Your task to perform on an android device: Open Reddit.com Image 0: 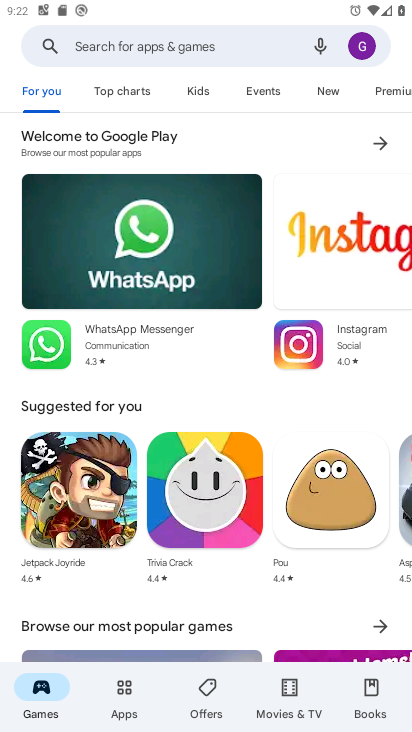
Step 0: press home button
Your task to perform on an android device: Open Reddit.com Image 1: 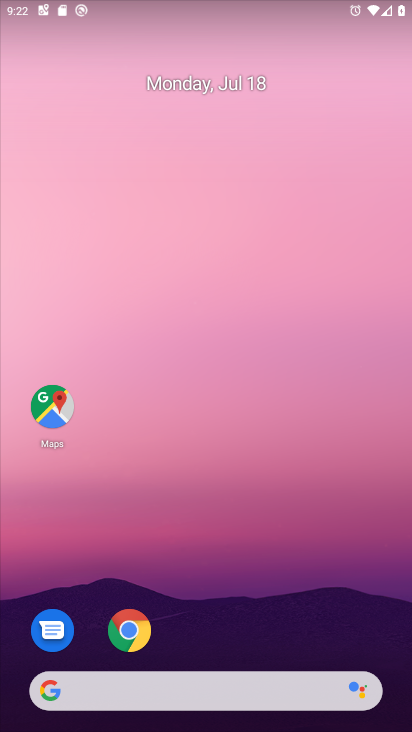
Step 1: click (130, 644)
Your task to perform on an android device: Open Reddit.com Image 2: 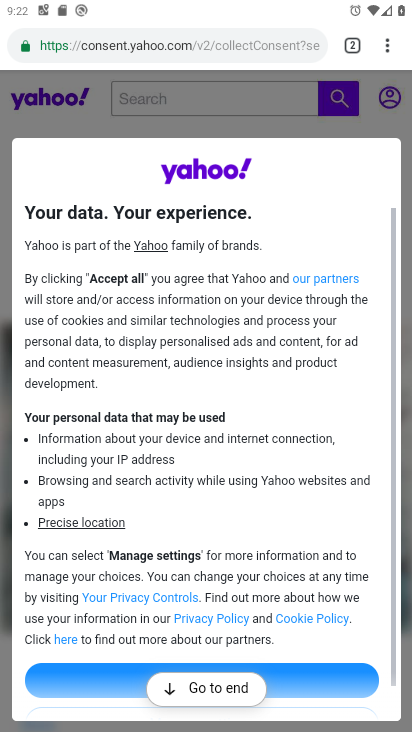
Step 2: click (346, 40)
Your task to perform on an android device: Open Reddit.com Image 3: 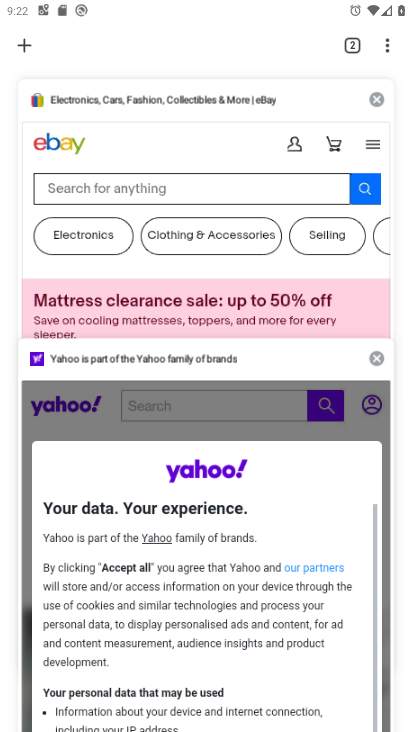
Step 3: click (28, 48)
Your task to perform on an android device: Open Reddit.com Image 4: 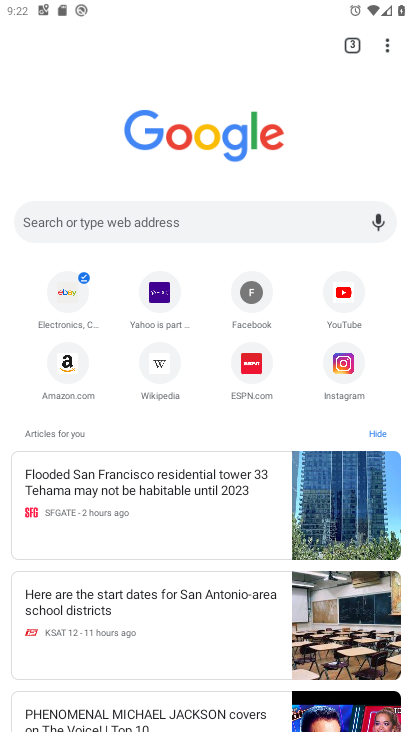
Step 4: click (205, 221)
Your task to perform on an android device: Open Reddit.com Image 5: 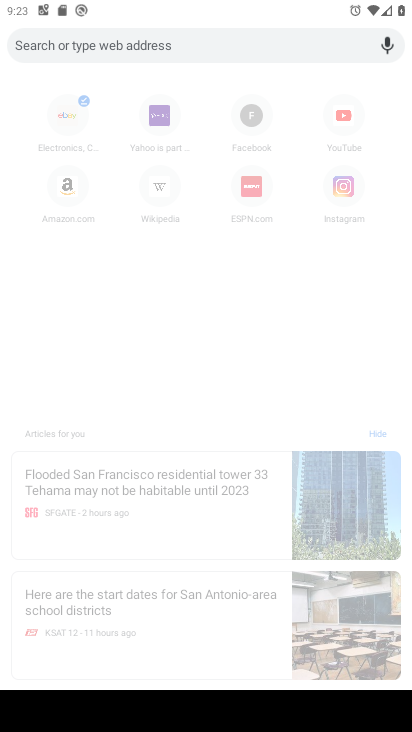
Step 5: type "Reddit.com"
Your task to perform on an android device: Open Reddit.com Image 6: 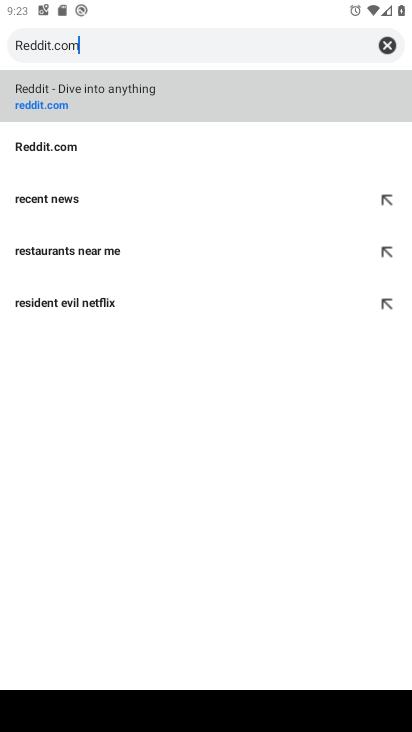
Step 6: type ""
Your task to perform on an android device: Open Reddit.com Image 7: 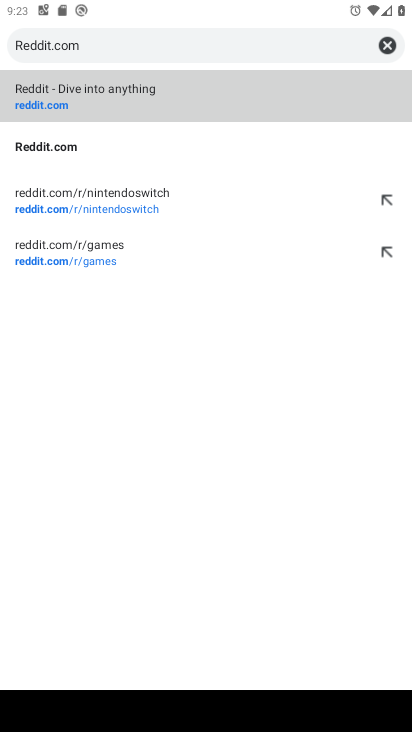
Step 7: click (262, 92)
Your task to perform on an android device: Open Reddit.com Image 8: 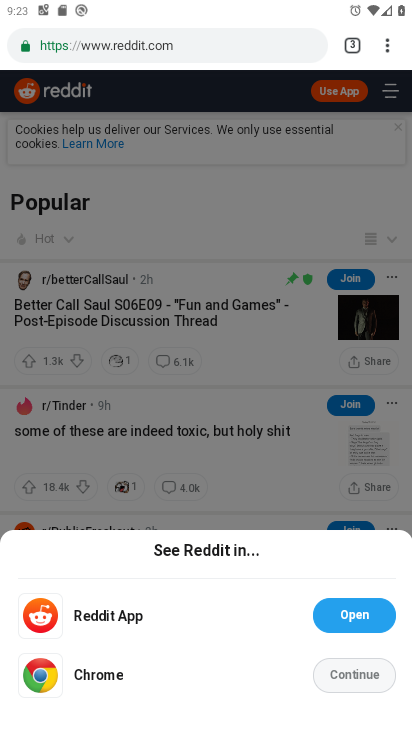
Step 8: click (331, 687)
Your task to perform on an android device: Open Reddit.com Image 9: 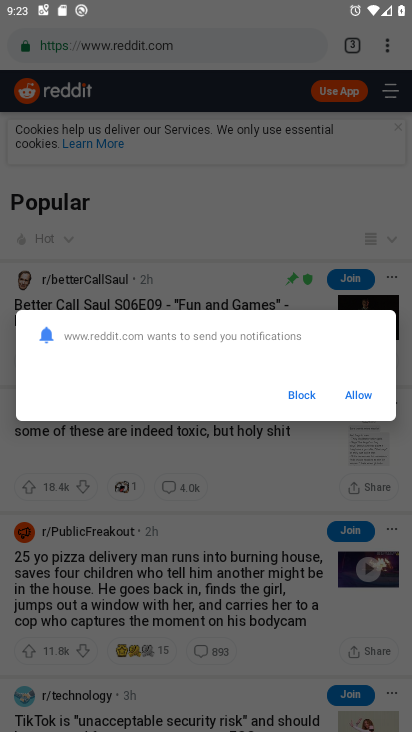
Step 9: task complete